Your task to perform on an android device: turn off sleep mode Image 0: 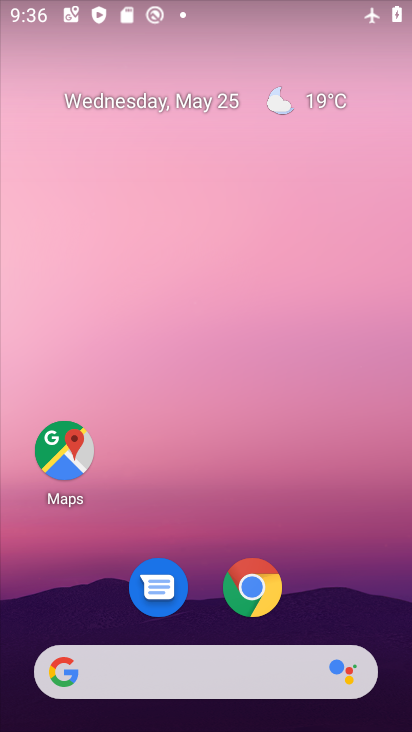
Step 0: drag from (379, 618) to (329, 36)
Your task to perform on an android device: turn off sleep mode Image 1: 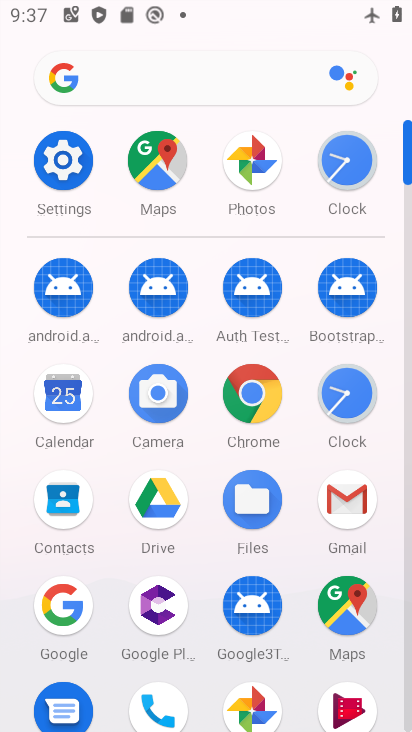
Step 1: click (409, 682)
Your task to perform on an android device: turn off sleep mode Image 2: 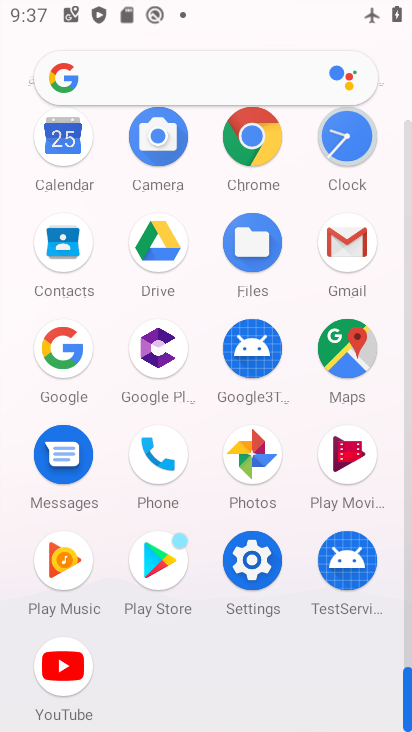
Step 2: click (251, 557)
Your task to perform on an android device: turn off sleep mode Image 3: 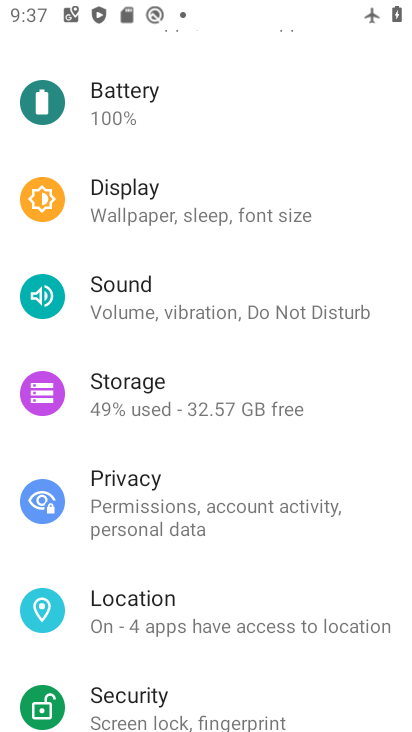
Step 3: click (153, 199)
Your task to perform on an android device: turn off sleep mode Image 4: 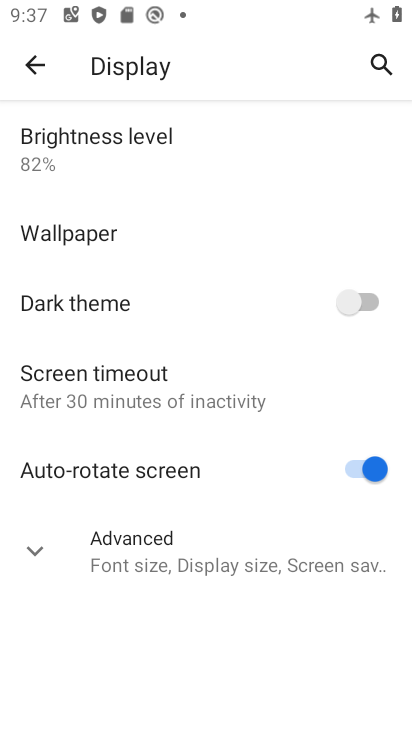
Step 4: click (35, 554)
Your task to perform on an android device: turn off sleep mode Image 5: 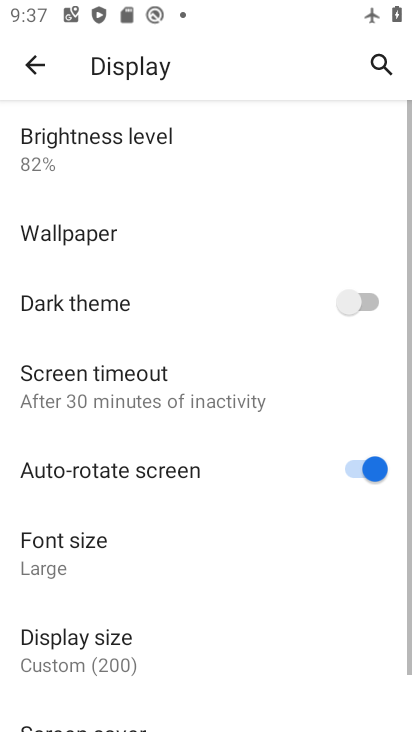
Step 5: task complete